Your task to perform on an android device: turn on the 24-hour format for clock Image 0: 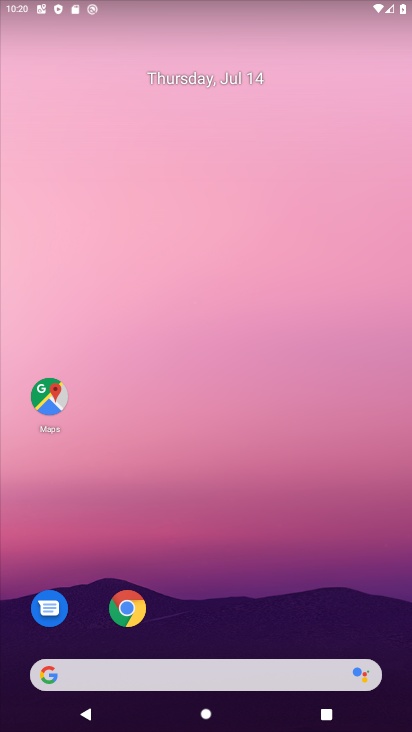
Step 0: drag from (180, 474) to (233, 10)
Your task to perform on an android device: turn on the 24-hour format for clock Image 1: 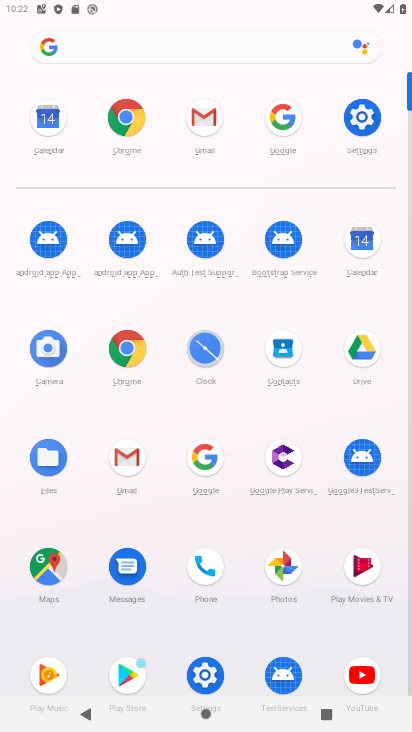
Step 1: click (199, 351)
Your task to perform on an android device: turn on the 24-hour format for clock Image 2: 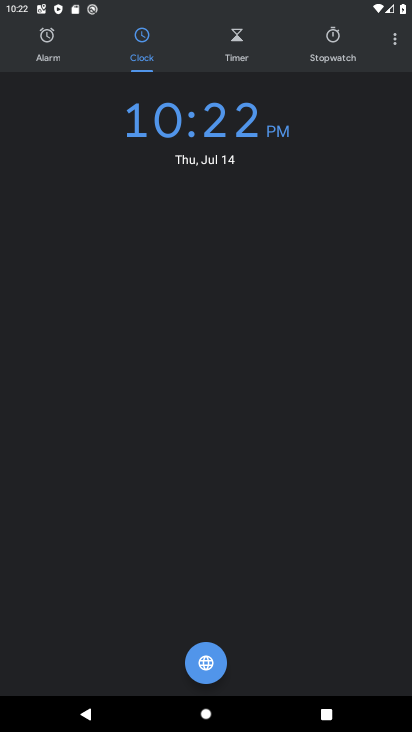
Step 2: click (397, 44)
Your task to perform on an android device: turn on the 24-hour format for clock Image 3: 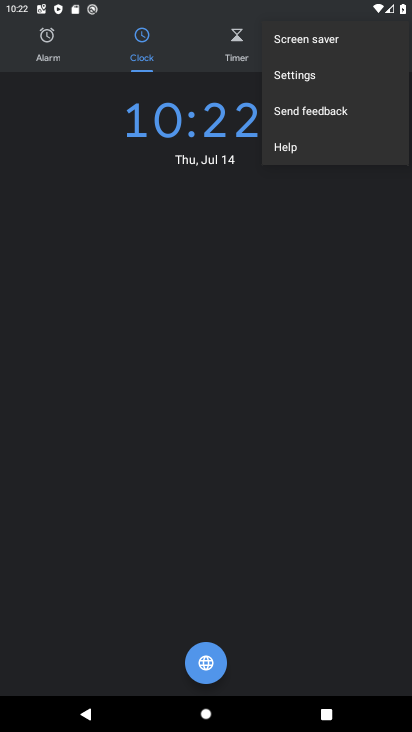
Step 3: click (326, 79)
Your task to perform on an android device: turn on the 24-hour format for clock Image 4: 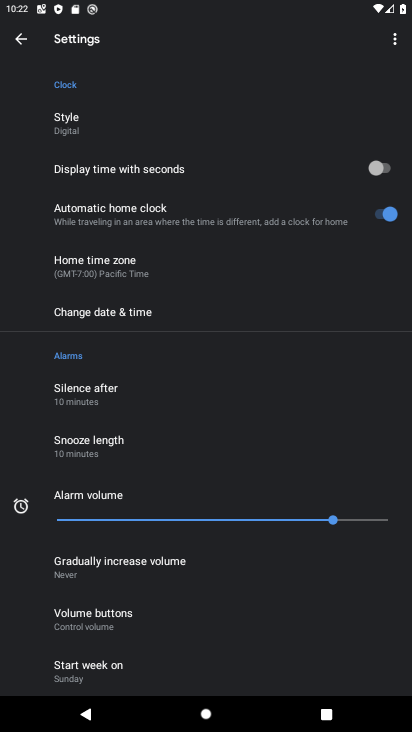
Step 4: click (141, 309)
Your task to perform on an android device: turn on the 24-hour format for clock Image 5: 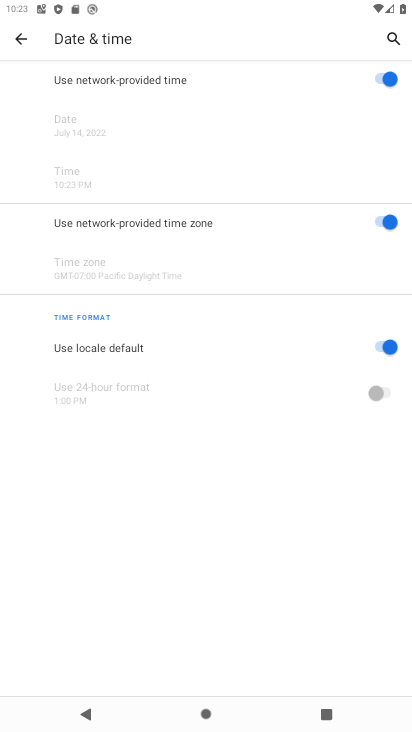
Step 5: click (381, 393)
Your task to perform on an android device: turn on the 24-hour format for clock Image 6: 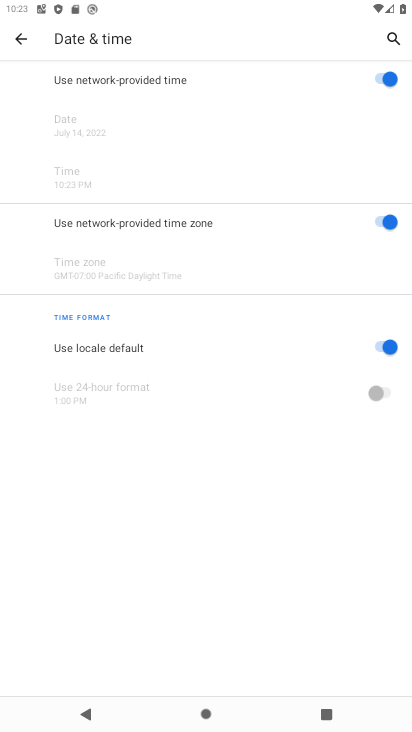
Step 6: click (390, 393)
Your task to perform on an android device: turn on the 24-hour format for clock Image 7: 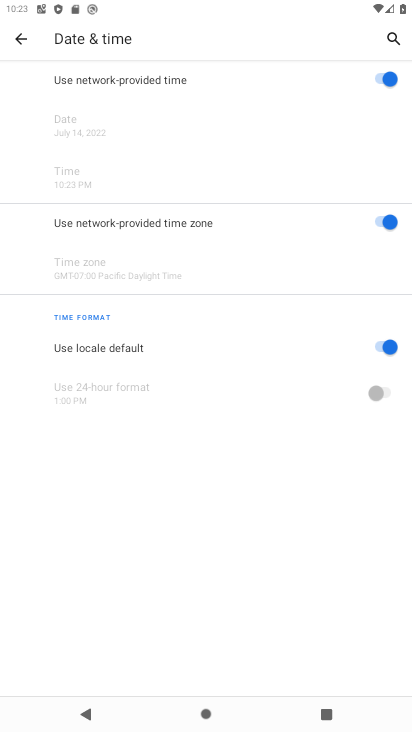
Step 7: click (385, 390)
Your task to perform on an android device: turn on the 24-hour format for clock Image 8: 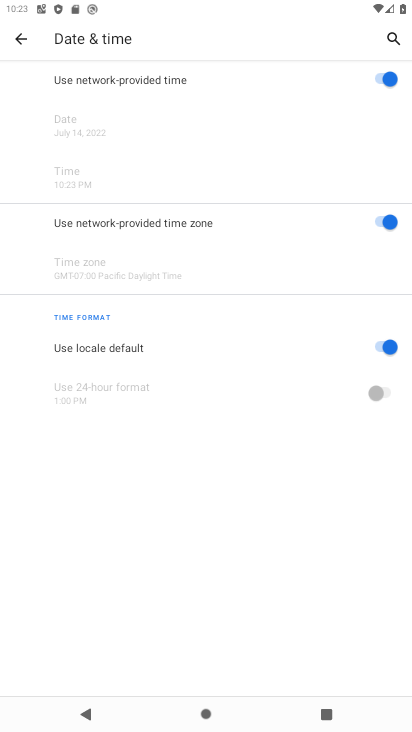
Step 8: click (385, 390)
Your task to perform on an android device: turn on the 24-hour format for clock Image 9: 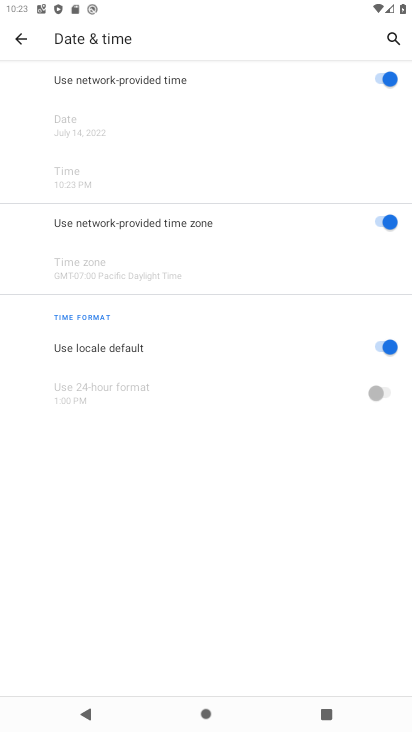
Step 9: click (375, 347)
Your task to perform on an android device: turn on the 24-hour format for clock Image 10: 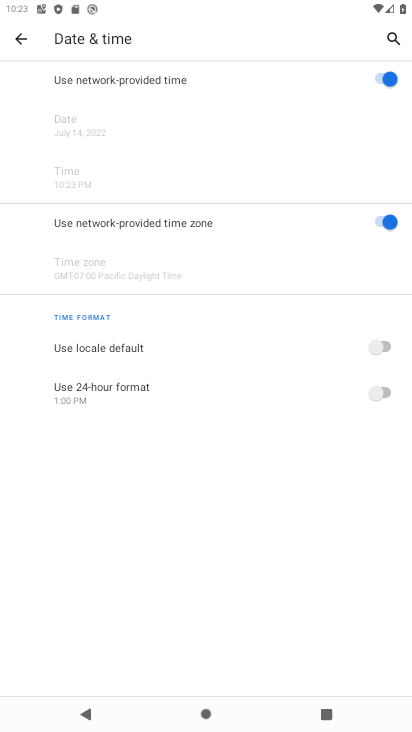
Step 10: click (393, 395)
Your task to perform on an android device: turn on the 24-hour format for clock Image 11: 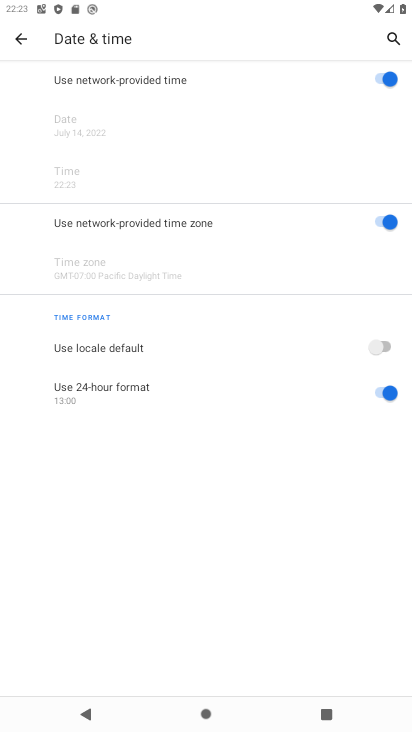
Step 11: task complete